Your task to perform on an android device: turn off smart reply in the gmail app Image 0: 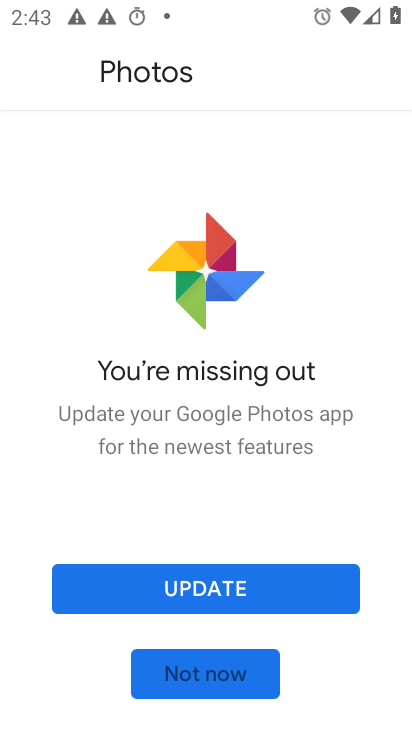
Step 0: press home button
Your task to perform on an android device: turn off smart reply in the gmail app Image 1: 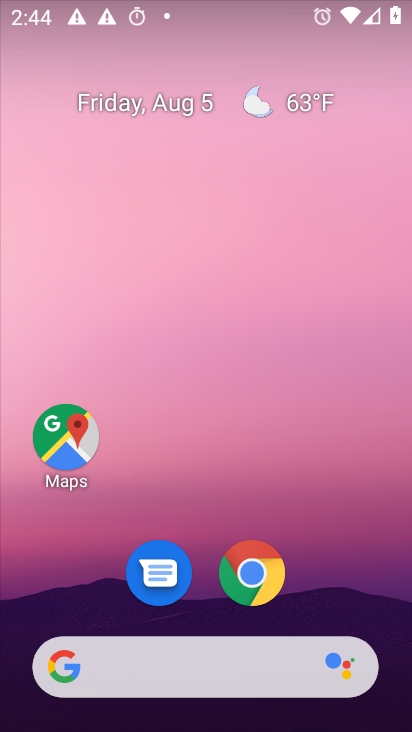
Step 1: drag from (367, 384) to (371, 154)
Your task to perform on an android device: turn off smart reply in the gmail app Image 2: 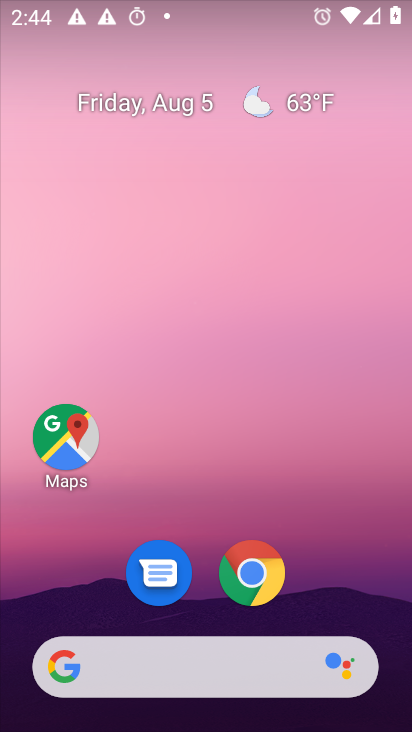
Step 2: drag from (328, 524) to (368, 55)
Your task to perform on an android device: turn off smart reply in the gmail app Image 3: 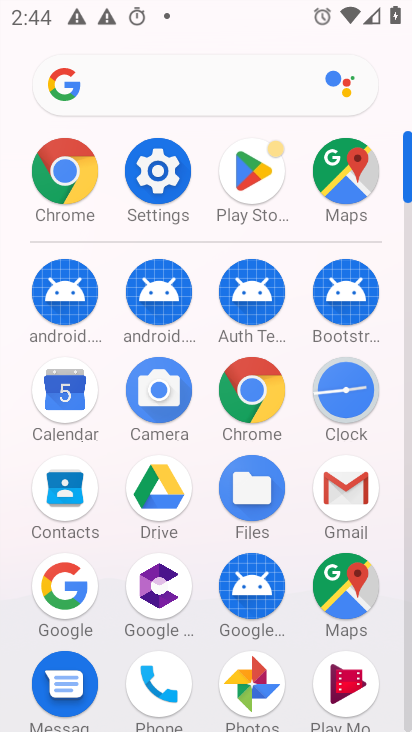
Step 3: click (352, 489)
Your task to perform on an android device: turn off smart reply in the gmail app Image 4: 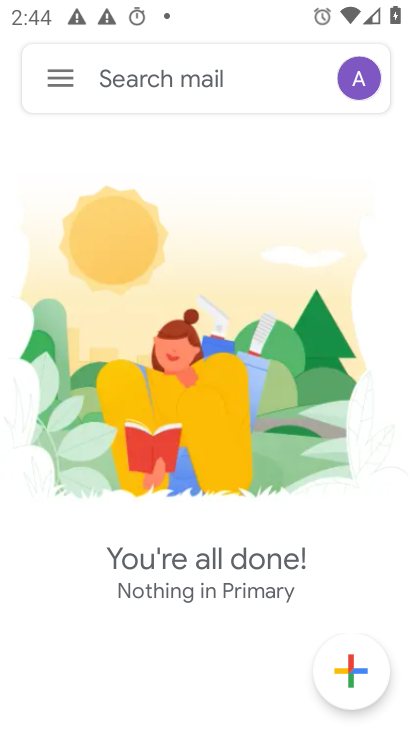
Step 4: click (54, 74)
Your task to perform on an android device: turn off smart reply in the gmail app Image 5: 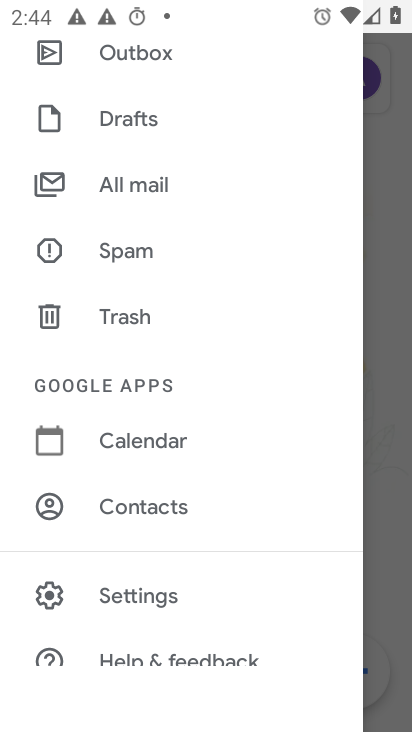
Step 5: click (178, 589)
Your task to perform on an android device: turn off smart reply in the gmail app Image 6: 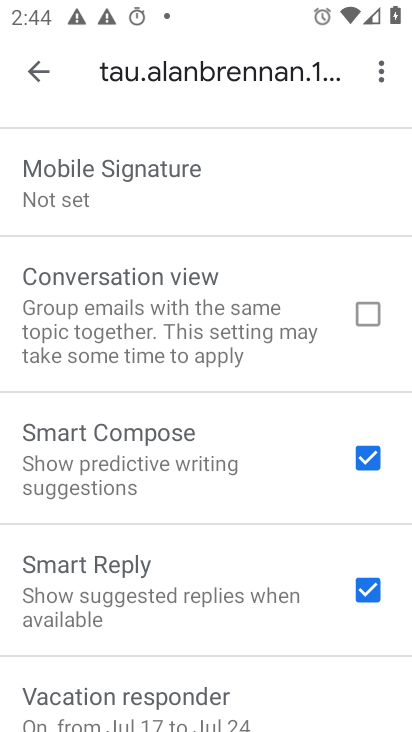
Step 6: click (363, 594)
Your task to perform on an android device: turn off smart reply in the gmail app Image 7: 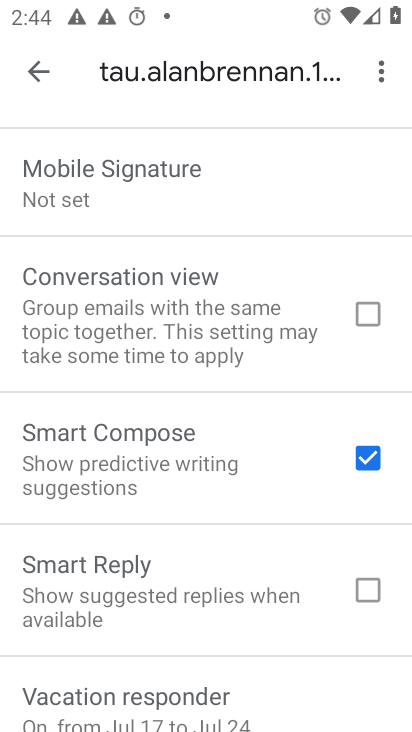
Step 7: task complete